Your task to perform on an android device: Go to CNN.com Image 0: 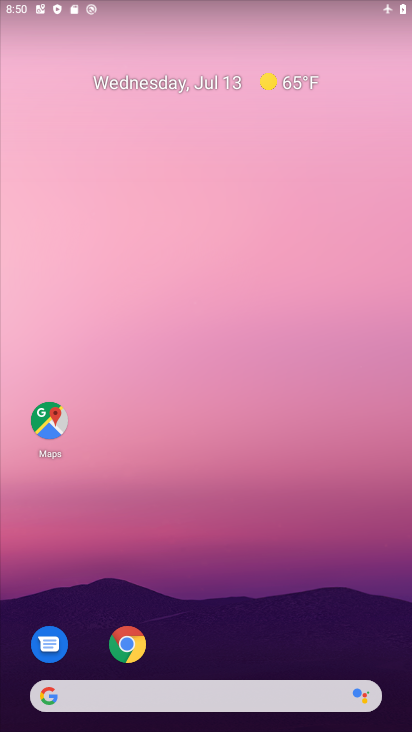
Step 0: drag from (279, 685) to (403, 11)
Your task to perform on an android device: Go to CNN.com Image 1: 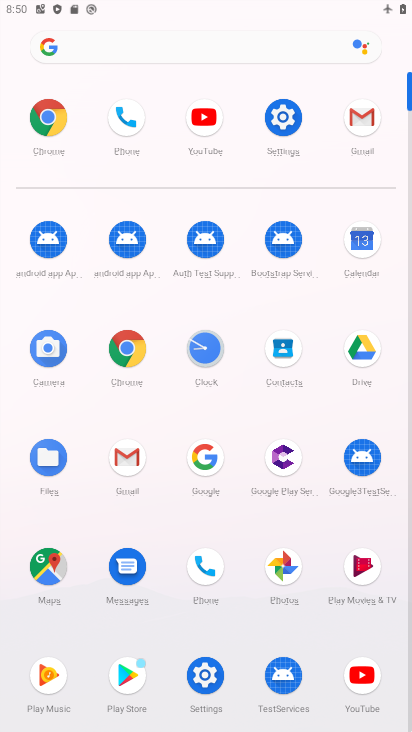
Step 1: click (48, 128)
Your task to perform on an android device: Go to CNN.com Image 2: 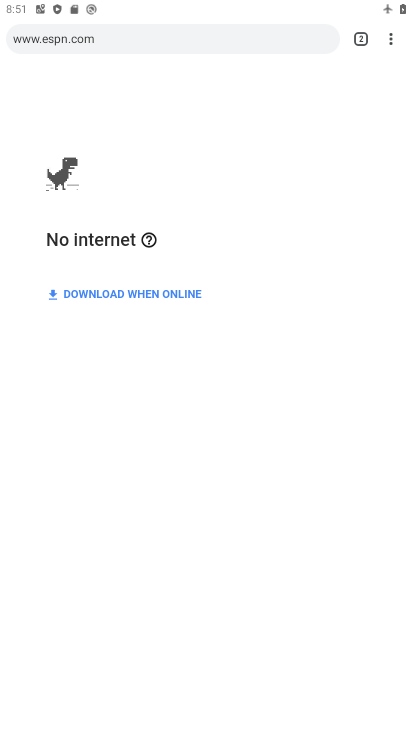
Step 2: task complete